Your task to perform on an android device: Go to accessibility settings Image 0: 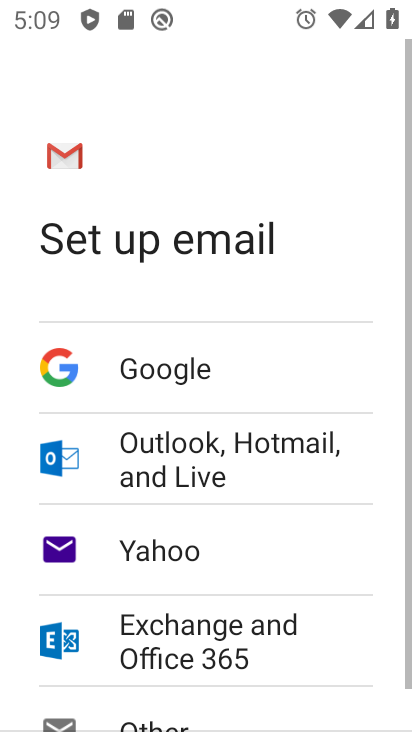
Step 0: press home button
Your task to perform on an android device: Go to accessibility settings Image 1: 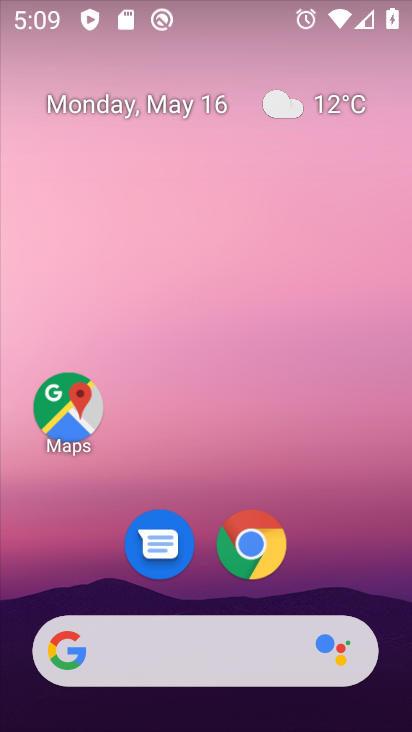
Step 1: drag from (343, 552) to (263, 117)
Your task to perform on an android device: Go to accessibility settings Image 2: 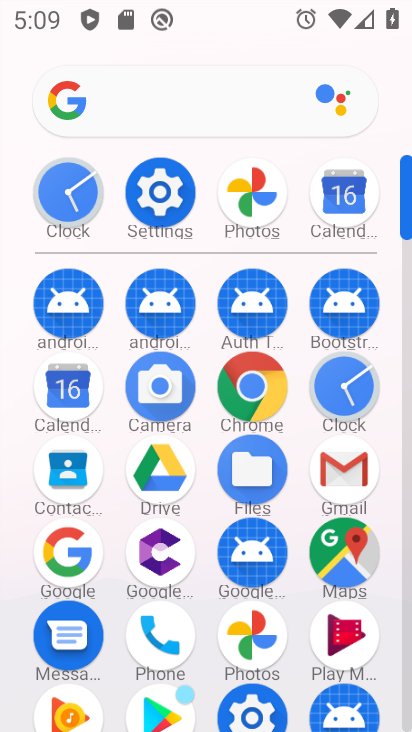
Step 2: click (159, 192)
Your task to perform on an android device: Go to accessibility settings Image 3: 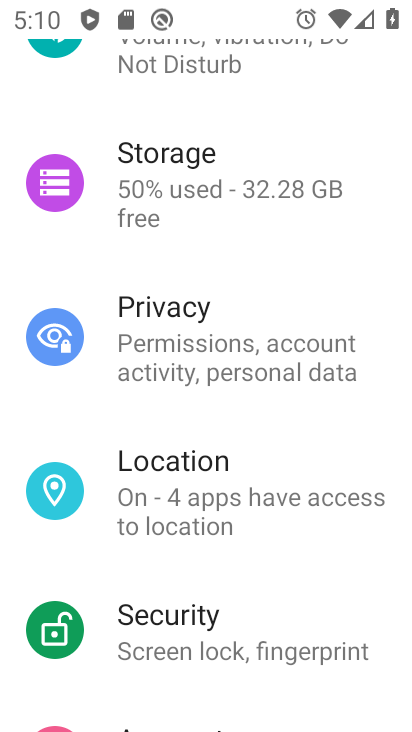
Step 3: drag from (239, 291) to (282, 180)
Your task to perform on an android device: Go to accessibility settings Image 4: 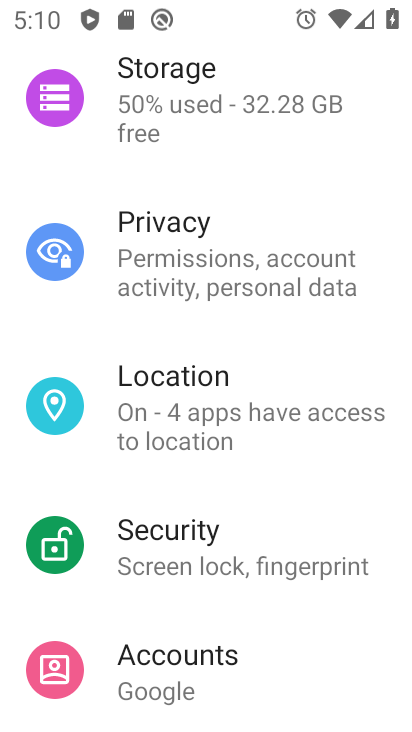
Step 4: drag from (241, 337) to (287, 234)
Your task to perform on an android device: Go to accessibility settings Image 5: 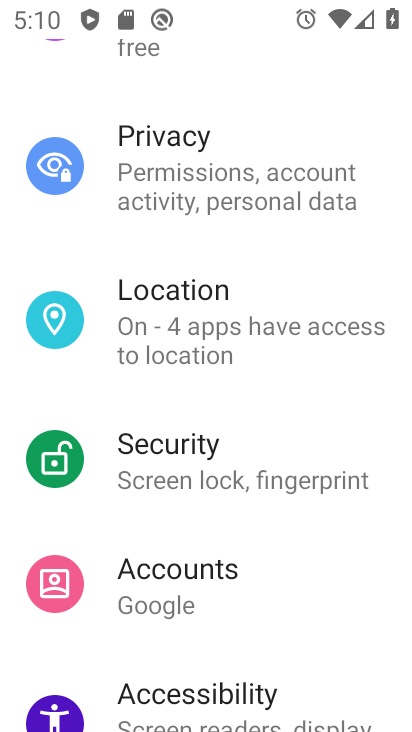
Step 5: drag from (218, 416) to (265, 320)
Your task to perform on an android device: Go to accessibility settings Image 6: 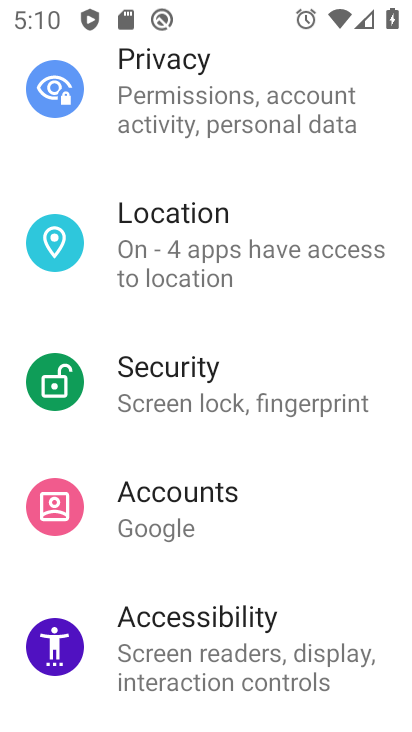
Step 6: drag from (196, 530) to (248, 396)
Your task to perform on an android device: Go to accessibility settings Image 7: 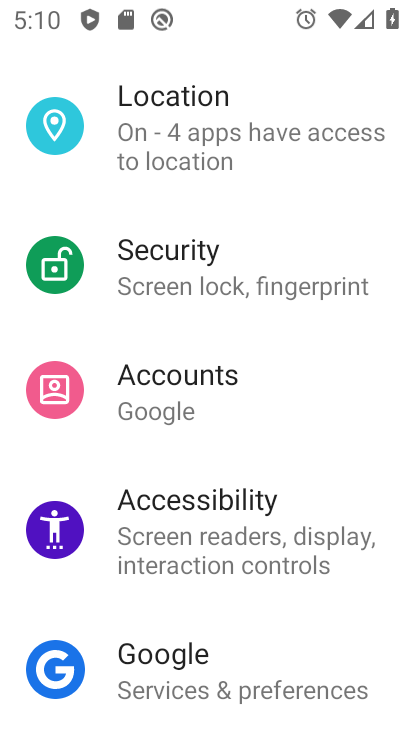
Step 7: click (206, 499)
Your task to perform on an android device: Go to accessibility settings Image 8: 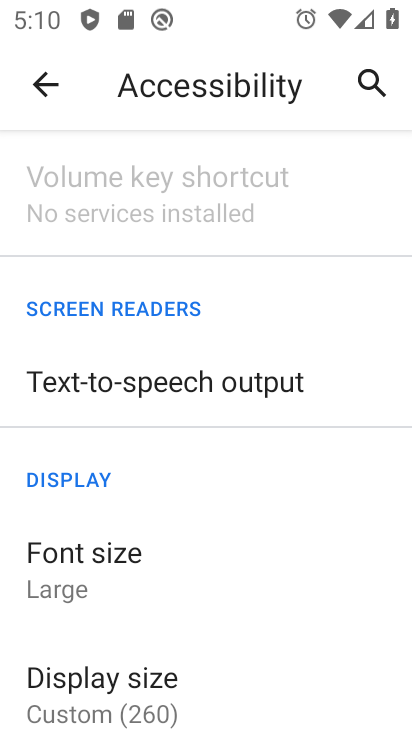
Step 8: task complete